Your task to perform on an android device: Open the calendar and show me this week's events? Image 0: 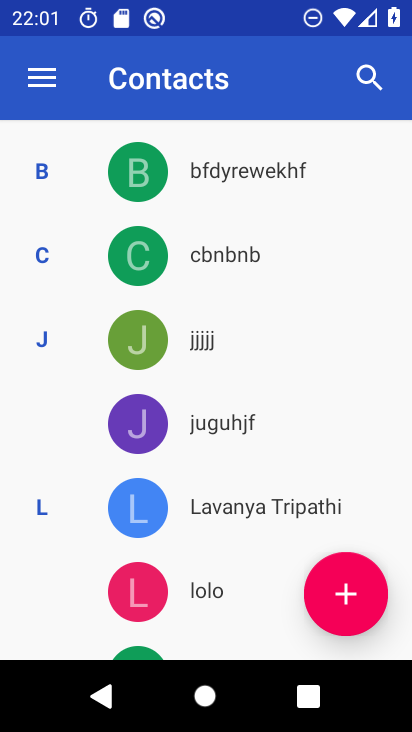
Step 0: press home button
Your task to perform on an android device: Open the calendar and show me this week's events? Image 1: 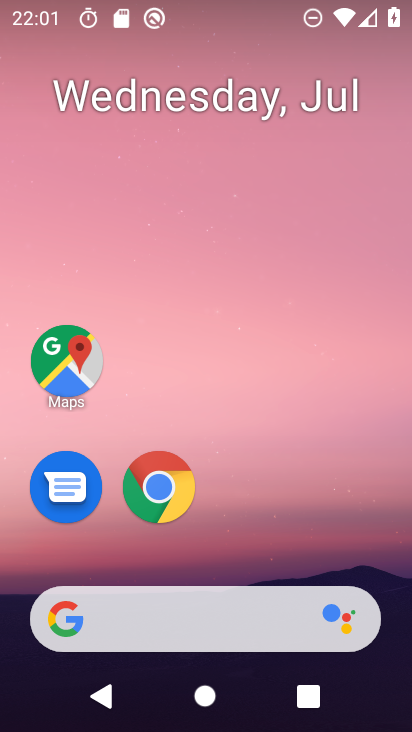
Step 1: drag from (356, 535) to (373, 150)
Your task to perform on an android device: Open the calendar and show me this week's events? Image 2: 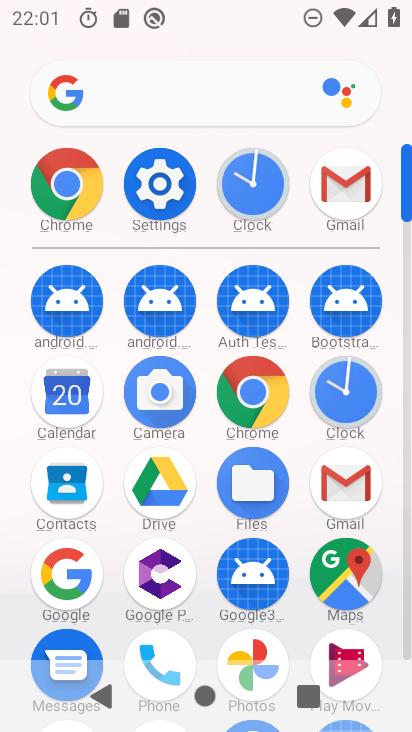
Step 2: click (78, 399)
Your task to perform on an android device: Open the calendar and show me this week's events? Image 3: 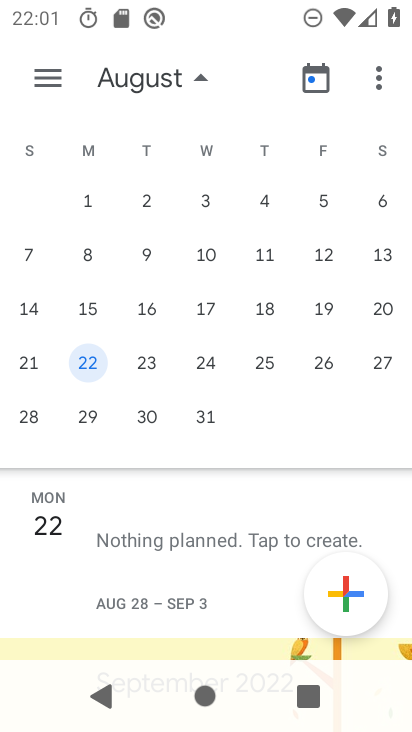
Step 3: task complete